Your task to perform on an android device: turn on notifications settings in the gmail app Image 0: 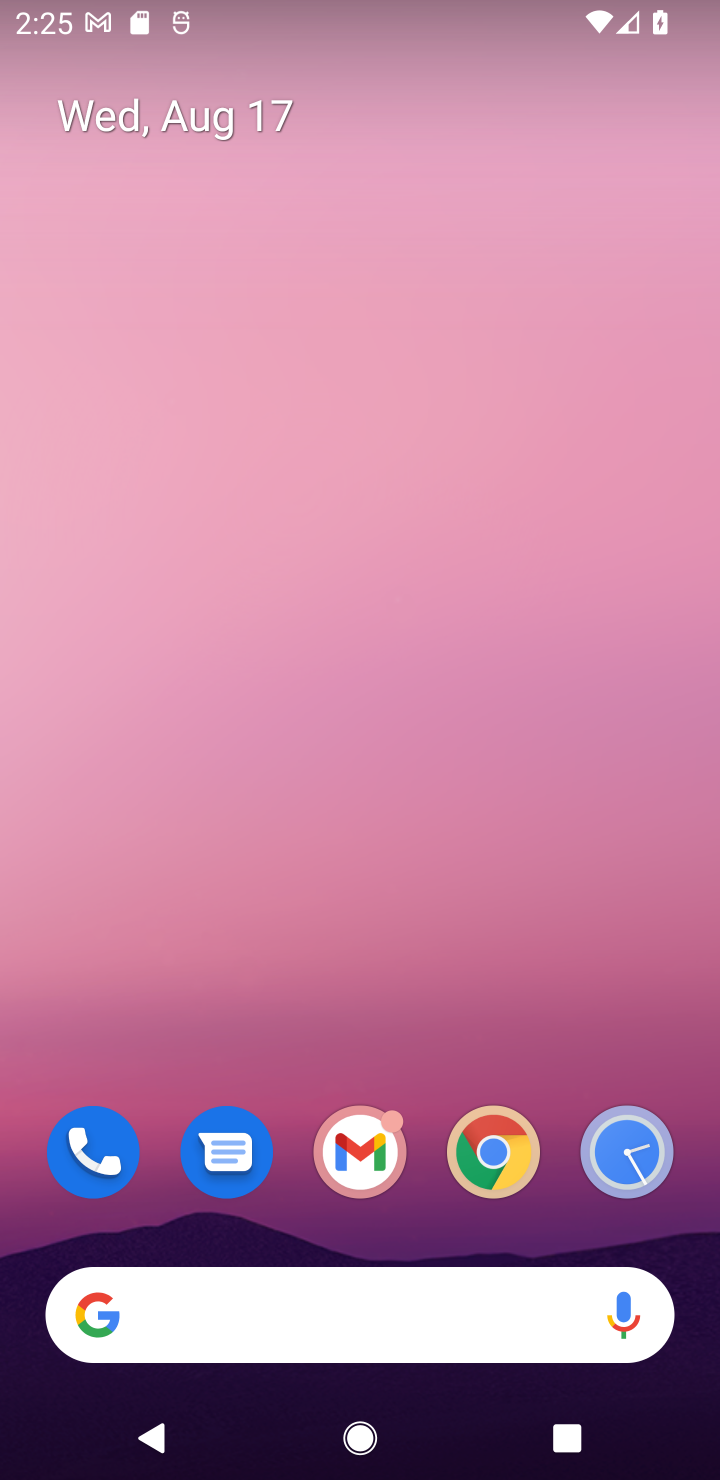
Step 0: drag from (589, 1214) to (331, 18)
Your task to perform on an android device: turn on notifications settings in the gmail app Image 1: 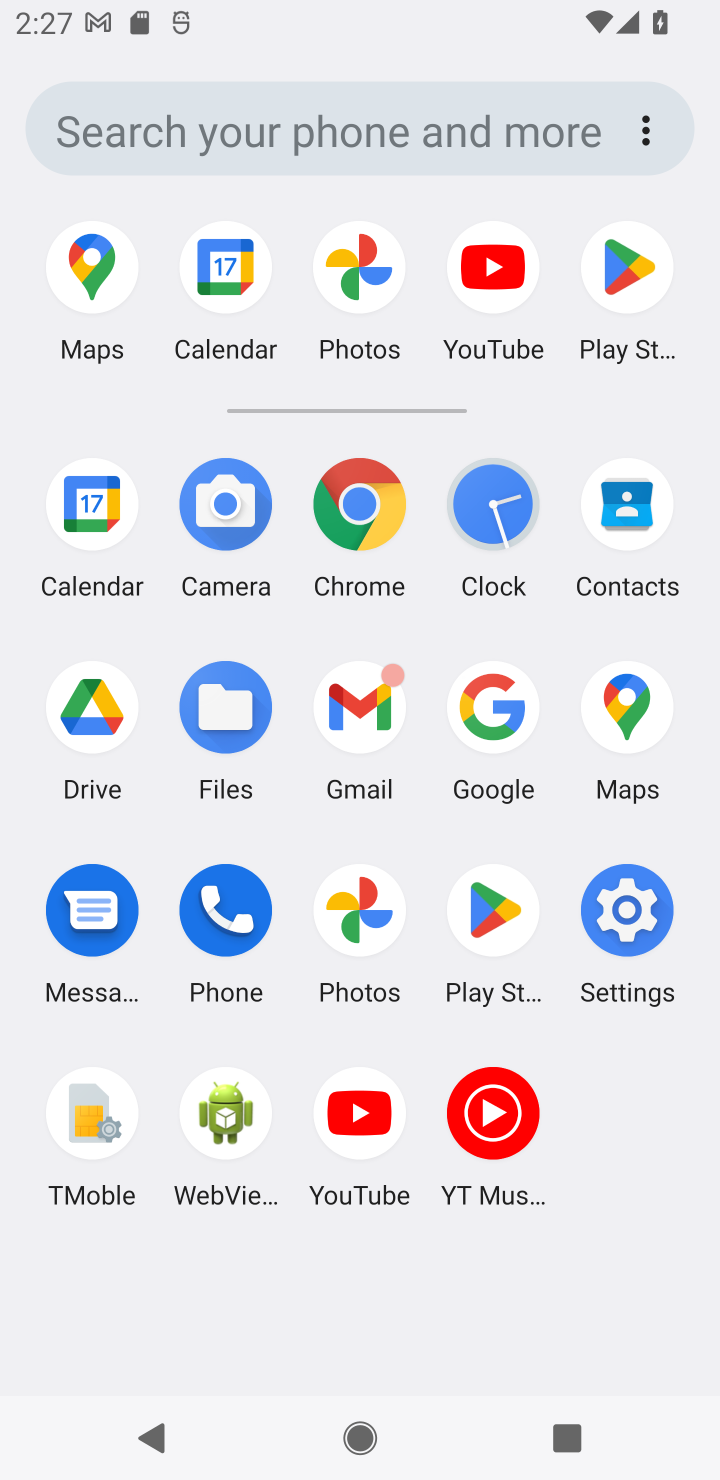
Step 1: click (359, 725)
Your task to perform on an android device: turn on notifications settings in the gmail app Image 2: 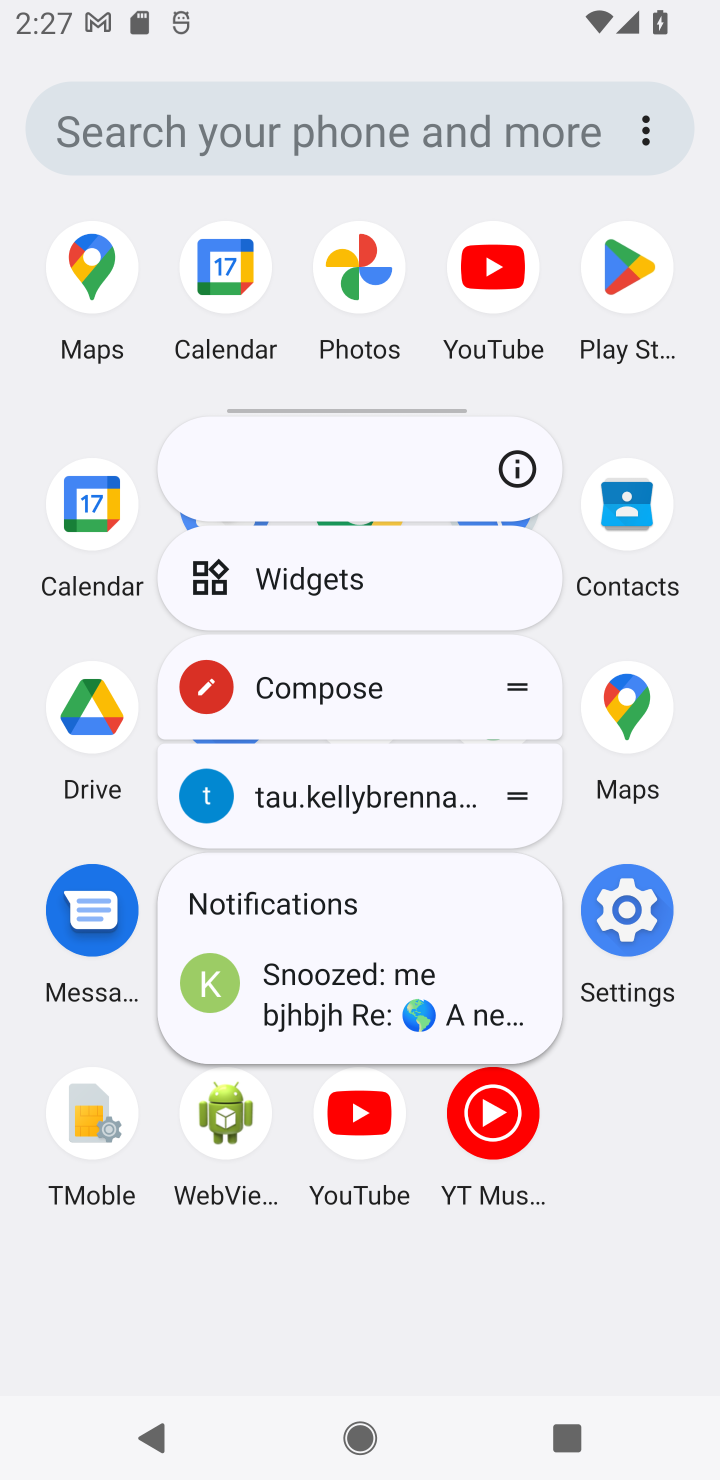
Step 2: task complete